Your task to perform on an android device: turn off priority inbox in the gmail app Image 0: 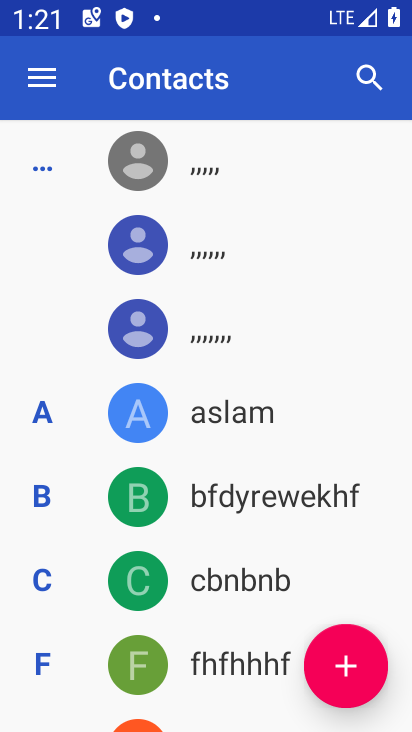
Step 0: press home button
Your task to perform on an android device: turn off priority inbox in the gmail app Image 1: 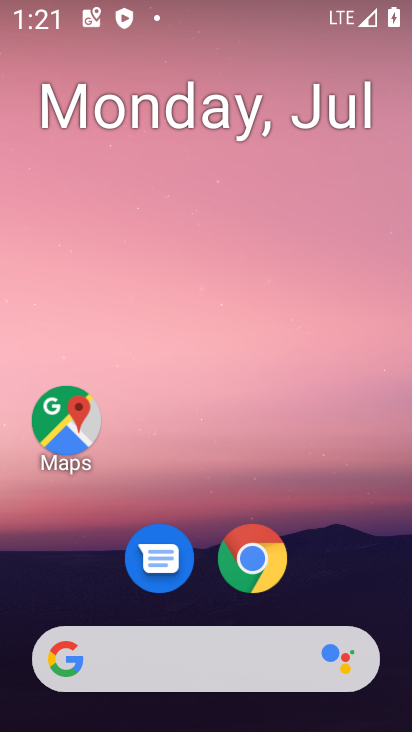
Step 1: drag from (378, 559) to (377, 78)
Your task to perform on an android device: turn off priority inbox in the gmail app Image 2: 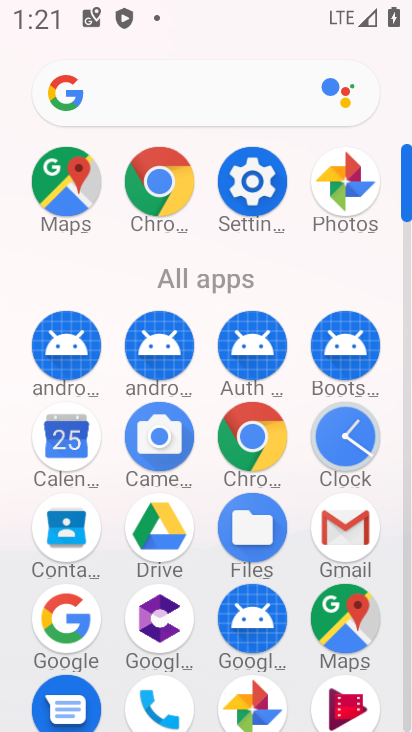
Step 2: click (346, 524)
Your task to perform on an android device: turn off priority inbox in the gmail app Image 3: 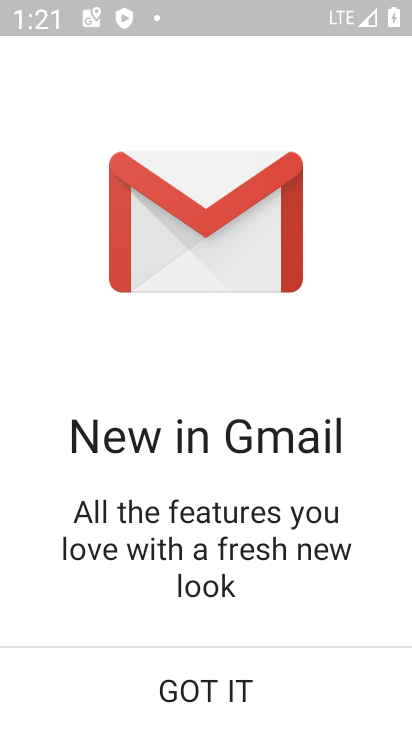
Step 3: click (237, 682)
Your task to perform on an android device: turn off priority inbox in the gmail app Image 4: 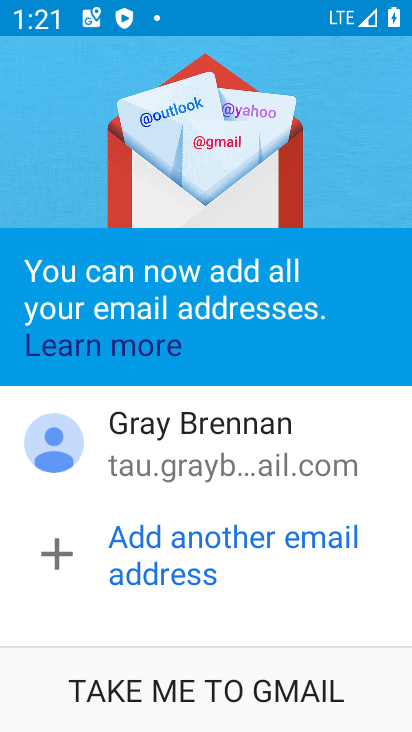
Step 4: click (257, 701)
Your task to perform on an android device: turn off priority inbox in the gmail app Image 5: 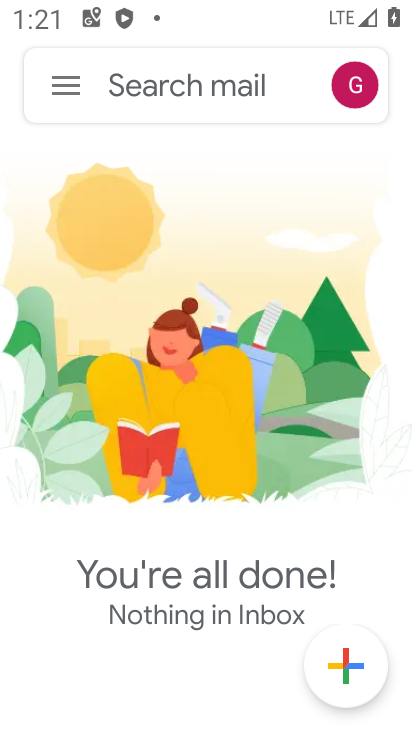
Step 5: click (66, 90)
Your task to perform on an android device: turn off priority inbox in the gmail app Image 6: 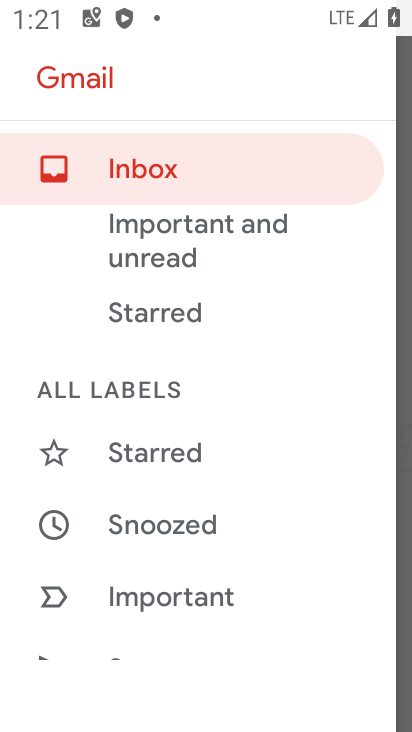
Step 6: drag from (317, 395) to (332, 259)
Your task to perform on an android device: turn off priority inbox in the gmail app Image 7: 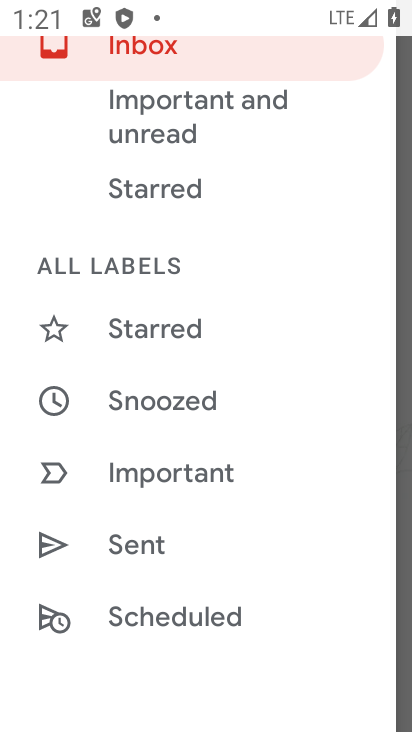
Step 7: drag from (342, 443) to (339, 317)
Your task to perform on an android device: turn off priority inbox in the gmail app Image 8: 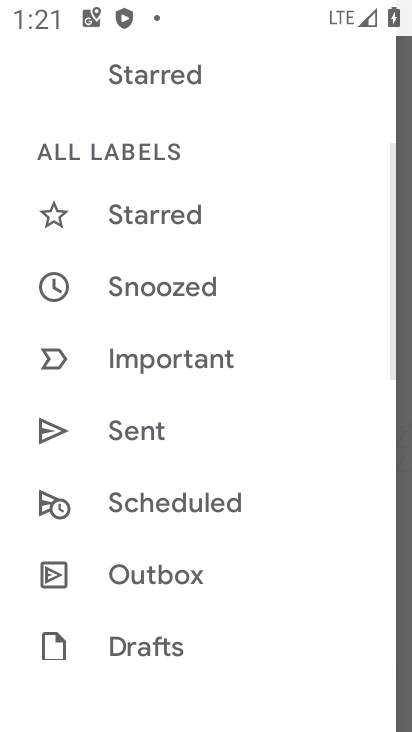
Step 8: drag from (315, 508) to (313, 362)
Your task to perform on an android device: turn off priority inbox in the gmail app Image 9: 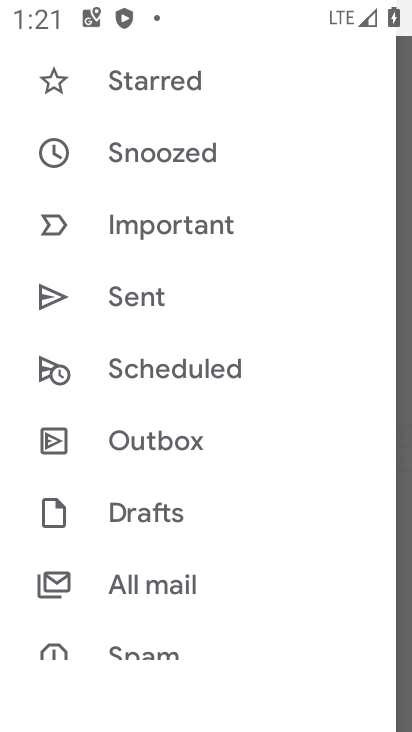
Step 9: drag from (301, 569) to (294, 403)
Your task to perform on an android device: turn off priority inbox in the gmail app Image 10: 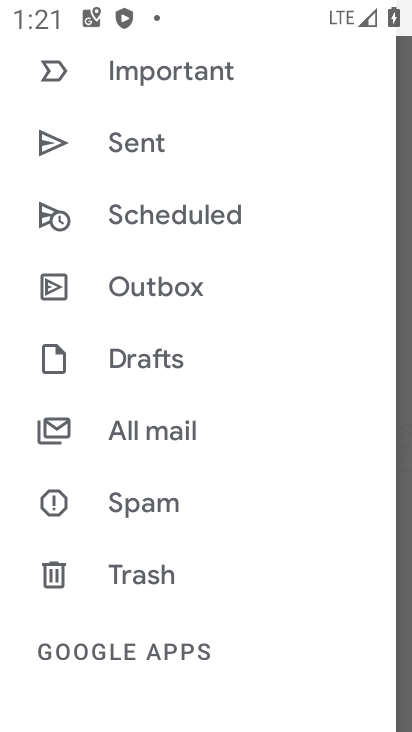
Step 10: drag from (270, 550) to (271, 382)
Your task to perform on an android device: turn off priority inbox in the gmail app Image 11: 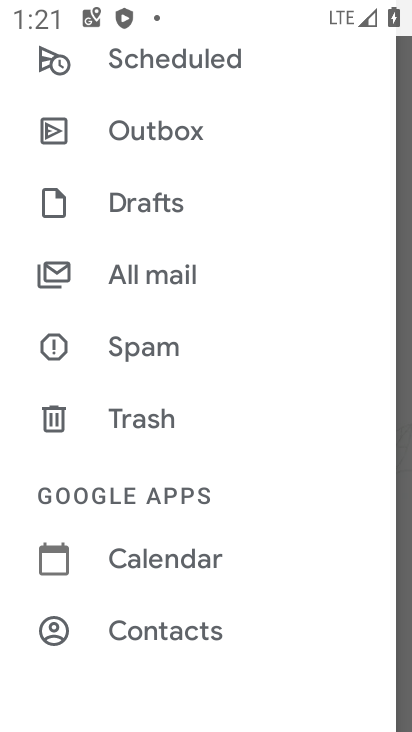
Step 11: drag from (282, 605) to (287, 385)
Your task to perform on an android device: turn off priority inbox in the gmail app Image 12: 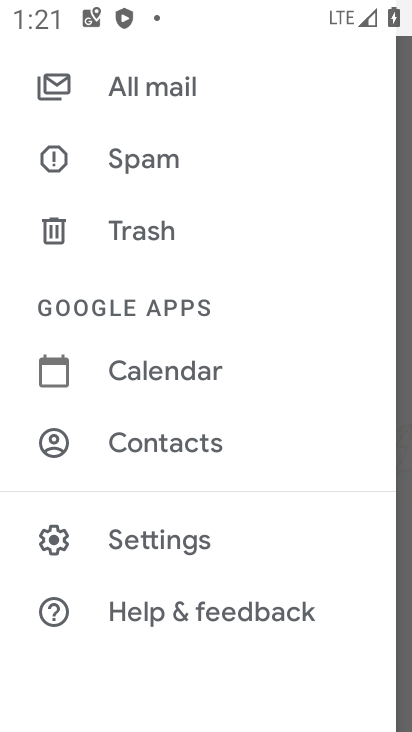
Step 12: click (264, 521)
Your task to perform on an android device: turn off priority inbox in the gmail app Image 13: 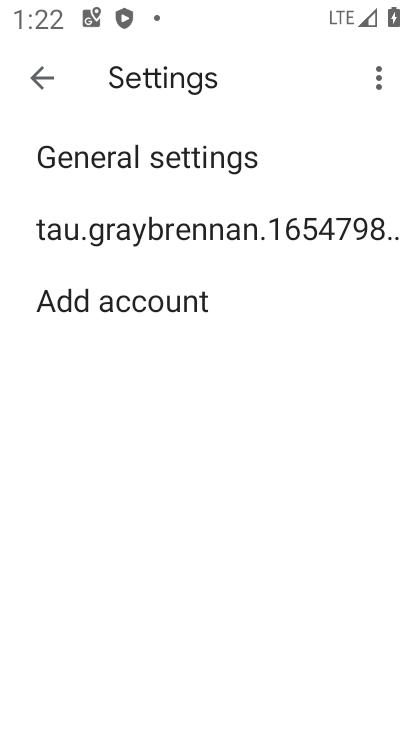
Step 13: click (248, 220)
Your task to perform on an android device: turn off priority inbox in the gmail app Image 14: 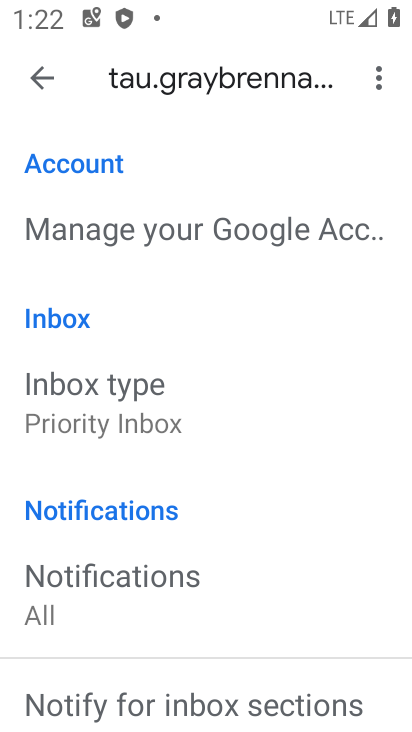
Step 14: drag from (306, 534) to (318, 347)
Your task to perform on an android device: turn off priority inbox in the gmail app Image 15: 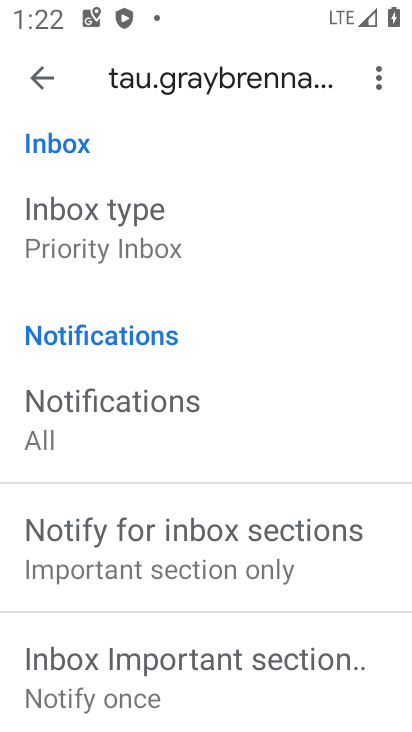
Step 15: drag from (315, 456) to (311, 394)
Your task to perform on an android device: turn off priority inbox in the gmail app Image 16: 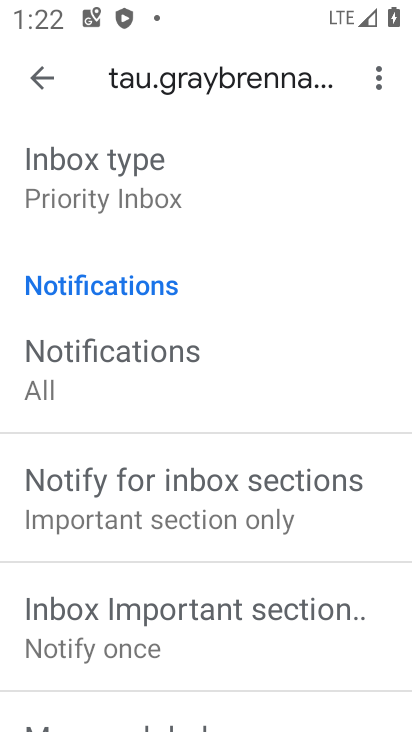
Step 16: click (178, 199)
Your task to perform on an android device: turn off priority inbox in the gmail app Image 17: 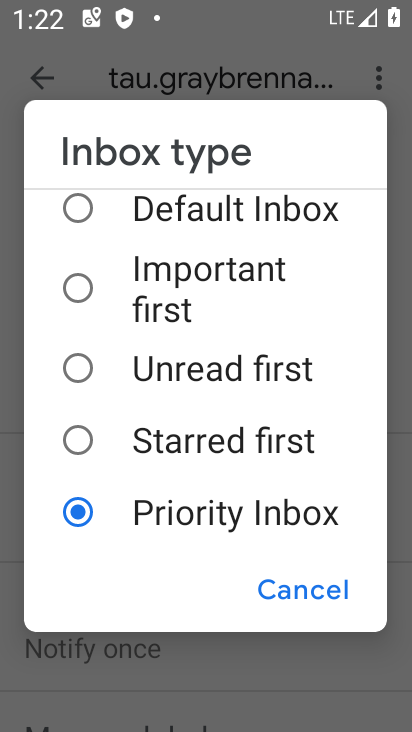
Step 17: click (83, 207)
Your task to perform on an android device: turn off priority inbox in the gmail app Image 18: 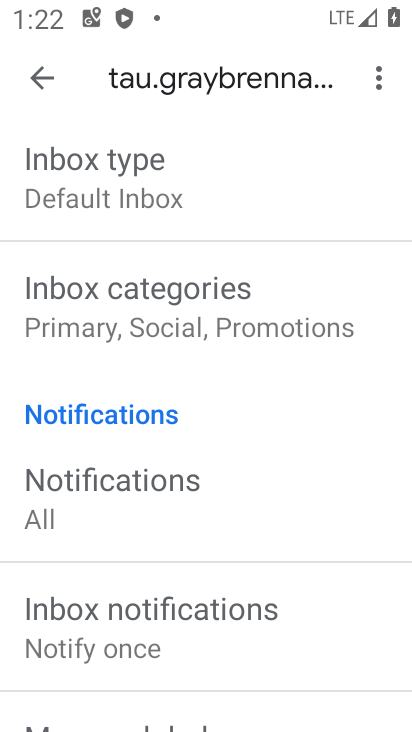
Step 18: task complete